Your task to perform on an android device: Google the capital of Colombia Image 0: 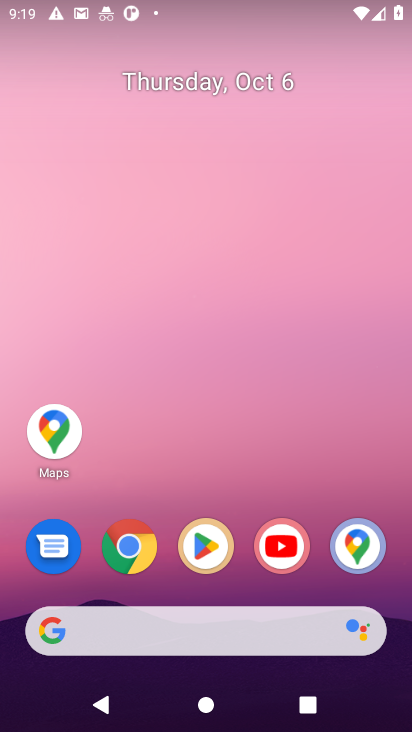
Step 0: click (124, 548)
Your task to perform on an android device: Google the capital of Colombia Image 1: 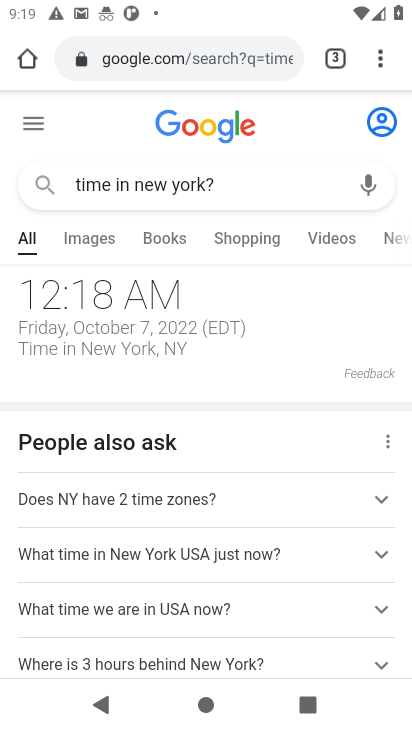
Step 1: click (220, 182)
Your task to perform on an android device: Google the capital of Colombia Image 2: 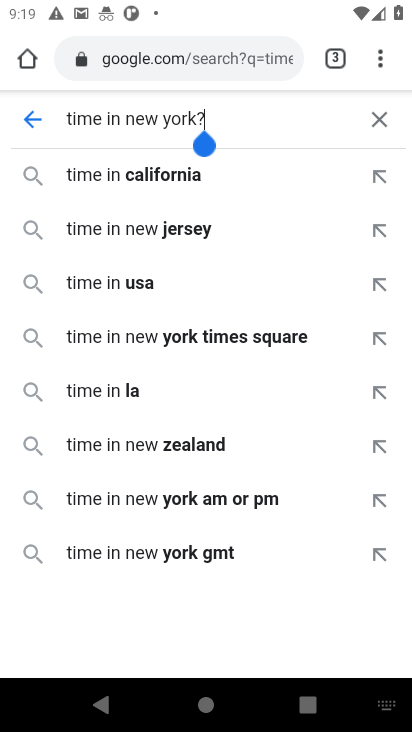
Step 2: click (381, 114)
Your task to perform on an android device: Google the capital of Colombia Image 3: 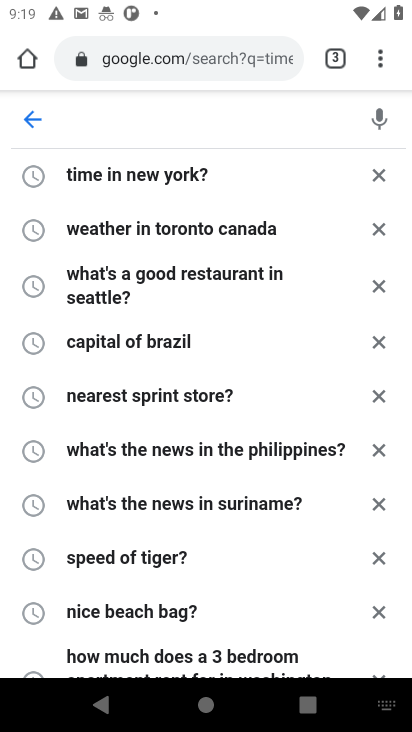
Step 3: type "capital of colombia"
Your task to perform on an android device: Google the capital of Colombia Image 4: 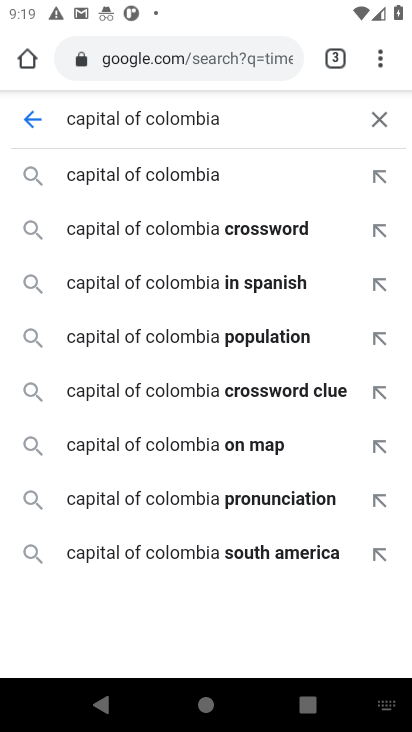
Step 4: click (158, 178)
Your task to perform on an android device: Google the capital of Colombia Image 5: 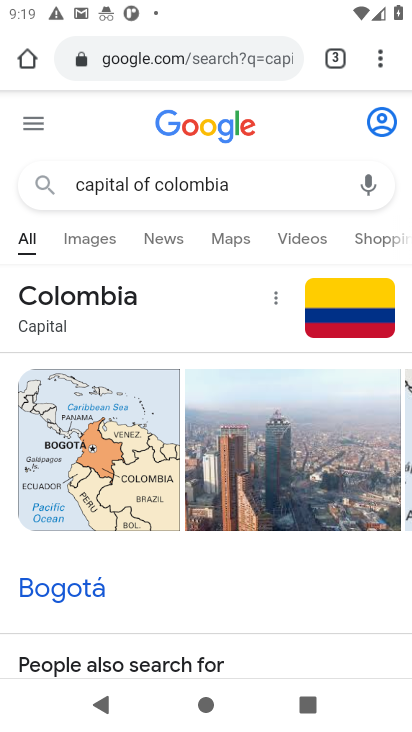
Step 5: drag from (220, 588) to (229, 461)
Your task to perform on an android device: Google the capital of Colombia Image 6: 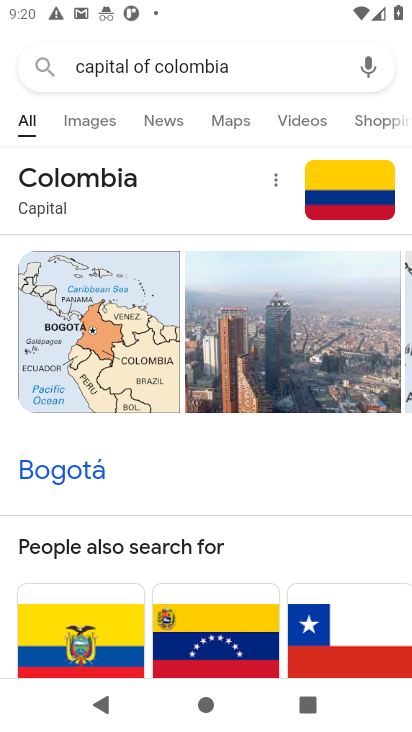
Step 6: click (61, 473)
Your task to perform on an android device: Google the capital of Colombia Image 7: 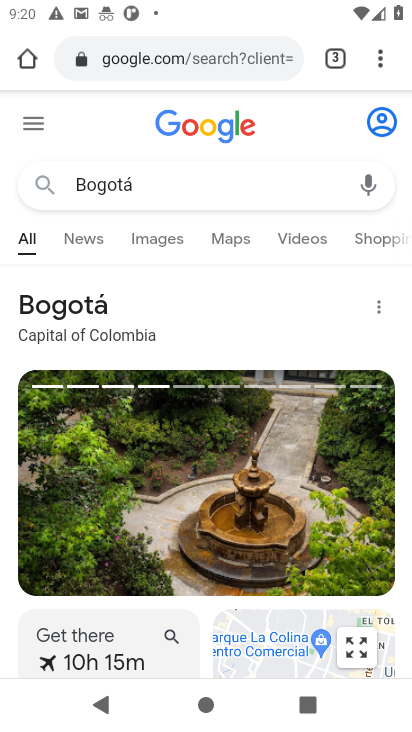
Step 7: task complete